Your task to perform on an android device: Open accessibility settings Image 0: 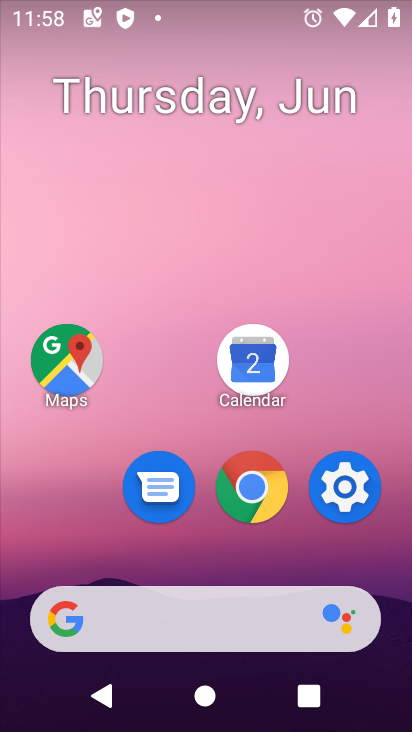
Step 0: drag from (286, 629) to (204, 77)
Your task to perform on an android device: Open accessibility settings Image 1: 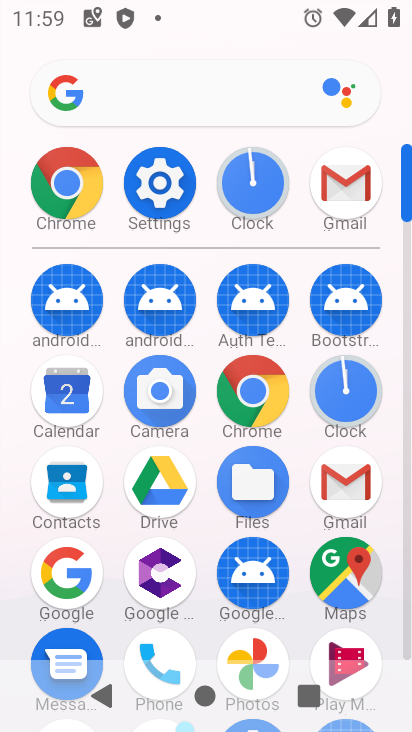
Step 1: click (146, 170)
Your task to perform on an android device: Open accessibility settings Image 2: 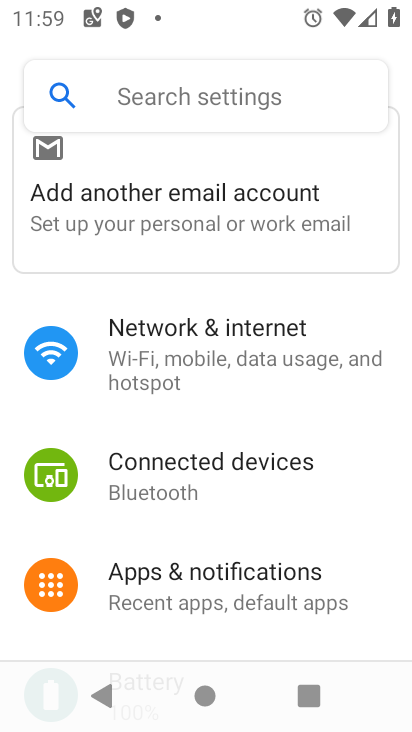
Step 2: click (158, 96)
Your task to perform on an android device: Open accessibility settings Image 3: 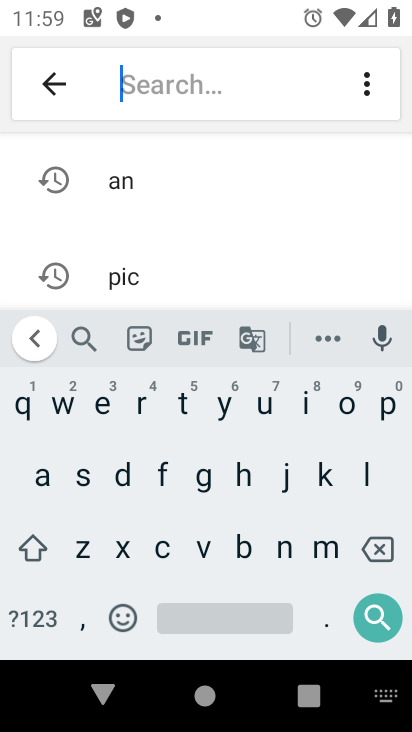
Step 3: click (35, 477)
Your task to perform on an android device: Open accessibility settings Image 4: 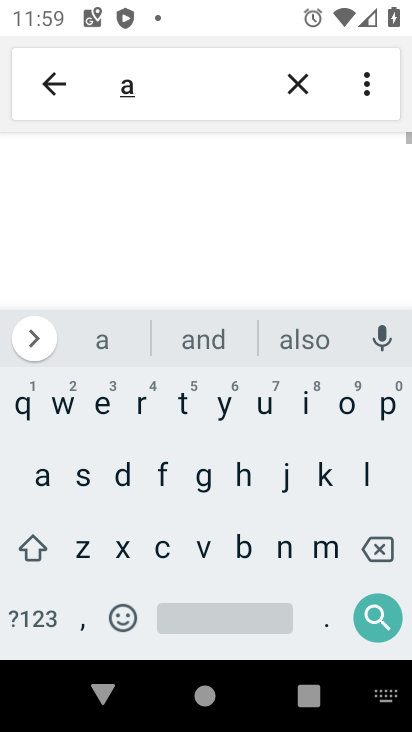
Step 4: click (158, 545)
Your task to perform on an android device: Open accessibility settings Image 5: 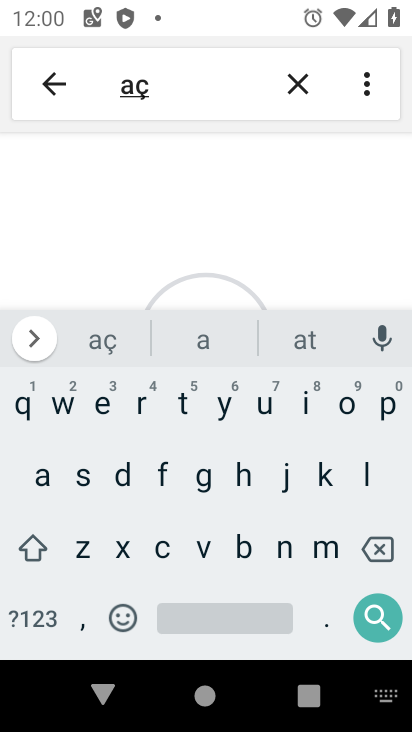
Step 5: click (376, 539)
Your task to perform on an android device: Open accessibility settings Image 6: 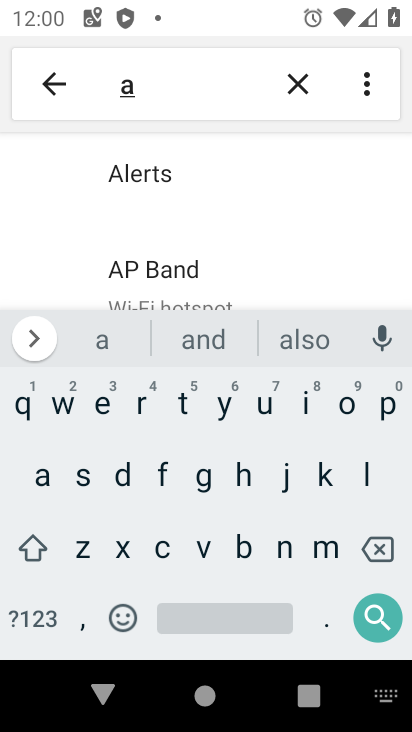
Step 6: click (154, 549)
Your task to perform on an android device: Open accessibility settings Image 7: 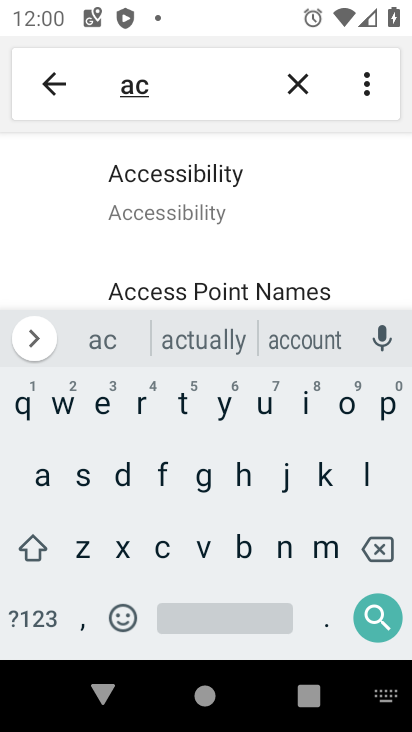
Step 7: click (148, 214)
Your task to perform on an android device: Open accessibility settings Image 8: 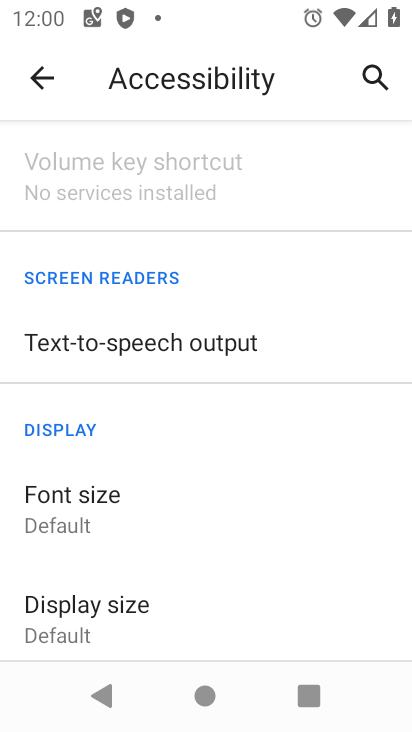
Step 8: task complete